Your task to perform on an android device: Find coffee shops on Maps Image 0: 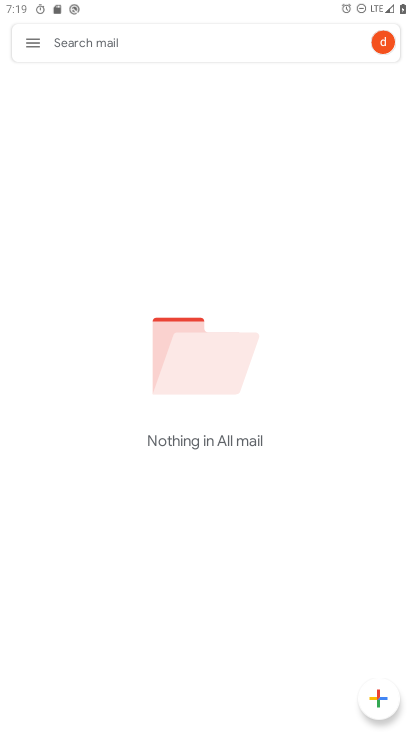
Step 0: press home button
Your task to perform on an android device: Find coffee shops on Maps Image 1: 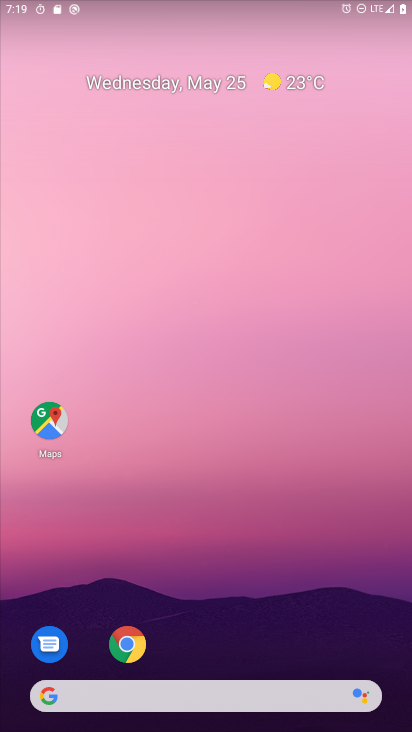
Step 1: drag from (347, 621) to (214, 49)
Your task to perform on an android device: Find coffee shops on Maps Image 2: 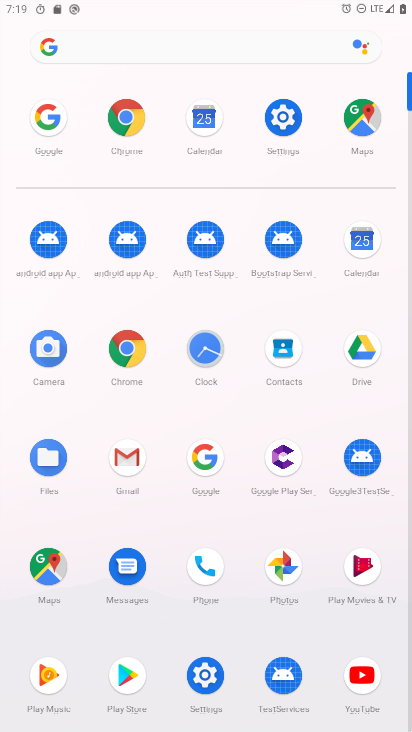
Step 2: click (43, 573)
Your task to perform on an android device: Find coffee shops on Maps Image 3: 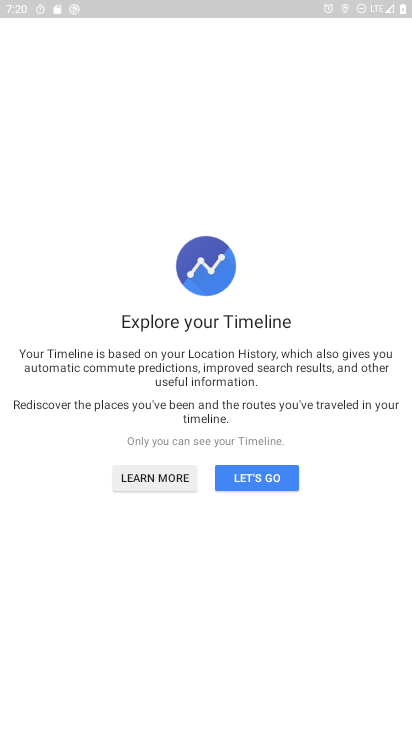
Step 3: press back button
Your task to perform on an android device: Find coffee shops on Maps Image 4: 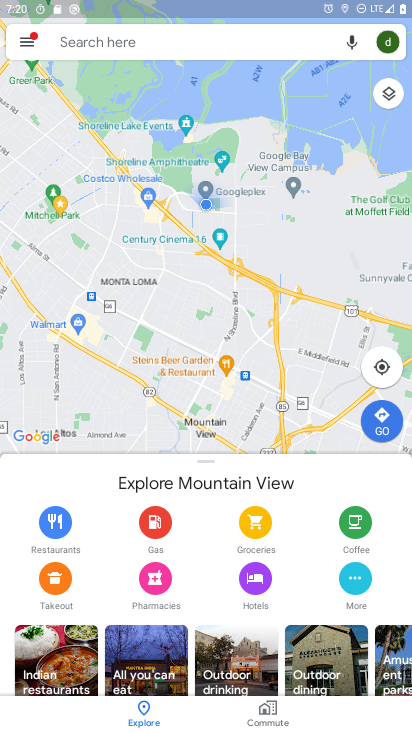
Step 4: click (138, 35)
Your task to perform on an android device: Find coffee shops on Maps Image 5: 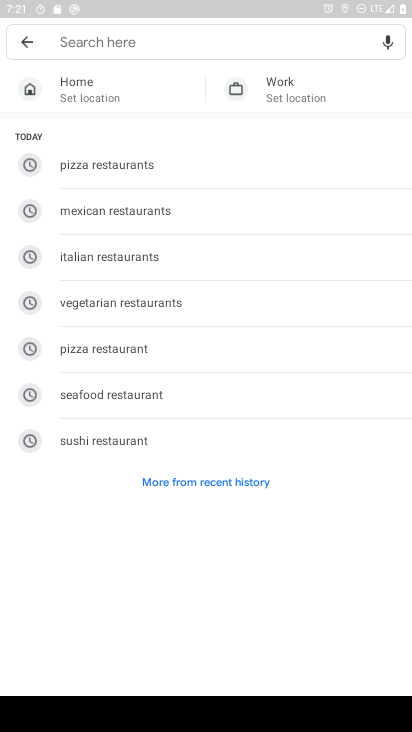
Step 5: type "coffee"
Your task to perform on an android device: Find coffee shops on Maps Image 6: 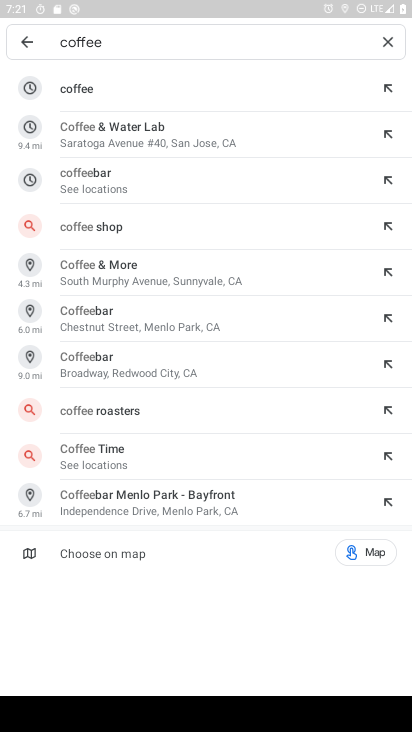
Step 6: click (96, 90)
Your task to perform on an android device: Find coffee shops on Maps Image 7: 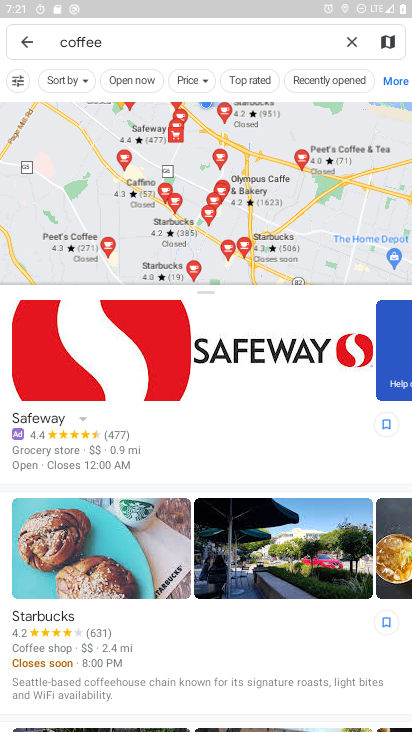
Step 7: task complete